Your task to perform on an android device: Open wifi settings Image 0: 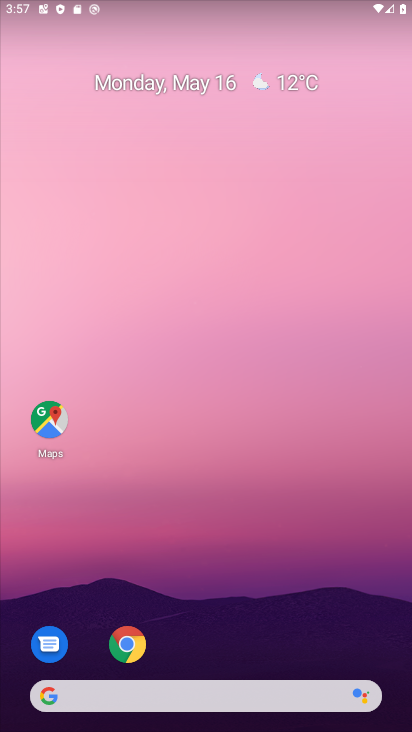
Step 0: drag from (92, 4) to (162, 624)
Your task to perform on an android device: Open wifi settings Image 1: 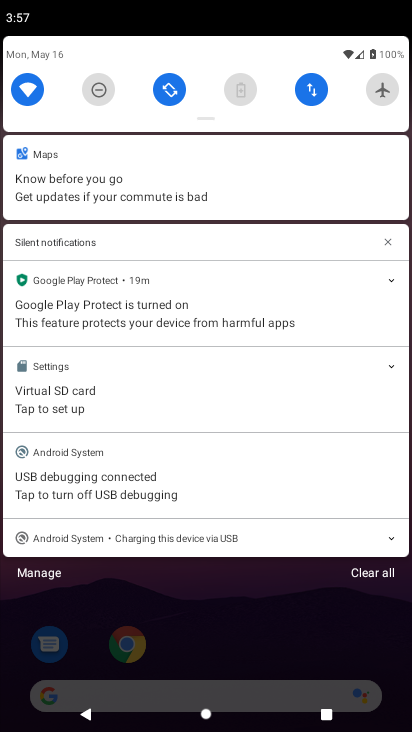
Step 1: click (27, 83)
Your task to perform on an android device: Open wifi settings Image 2: 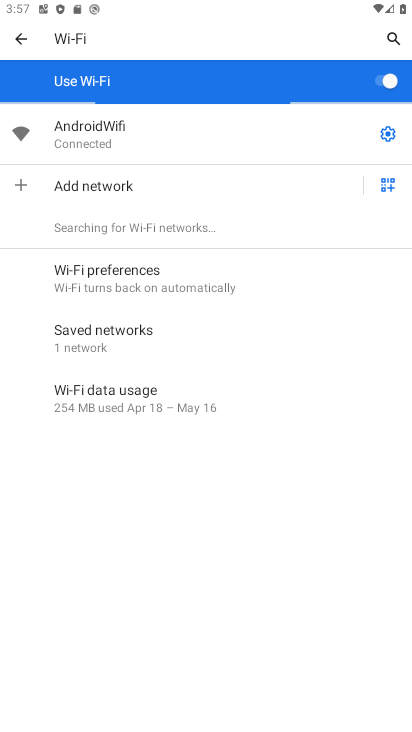
Step 2: task complete